Your task to perform on an android device: Open calendar and show me the fourth week of next month Image 0: 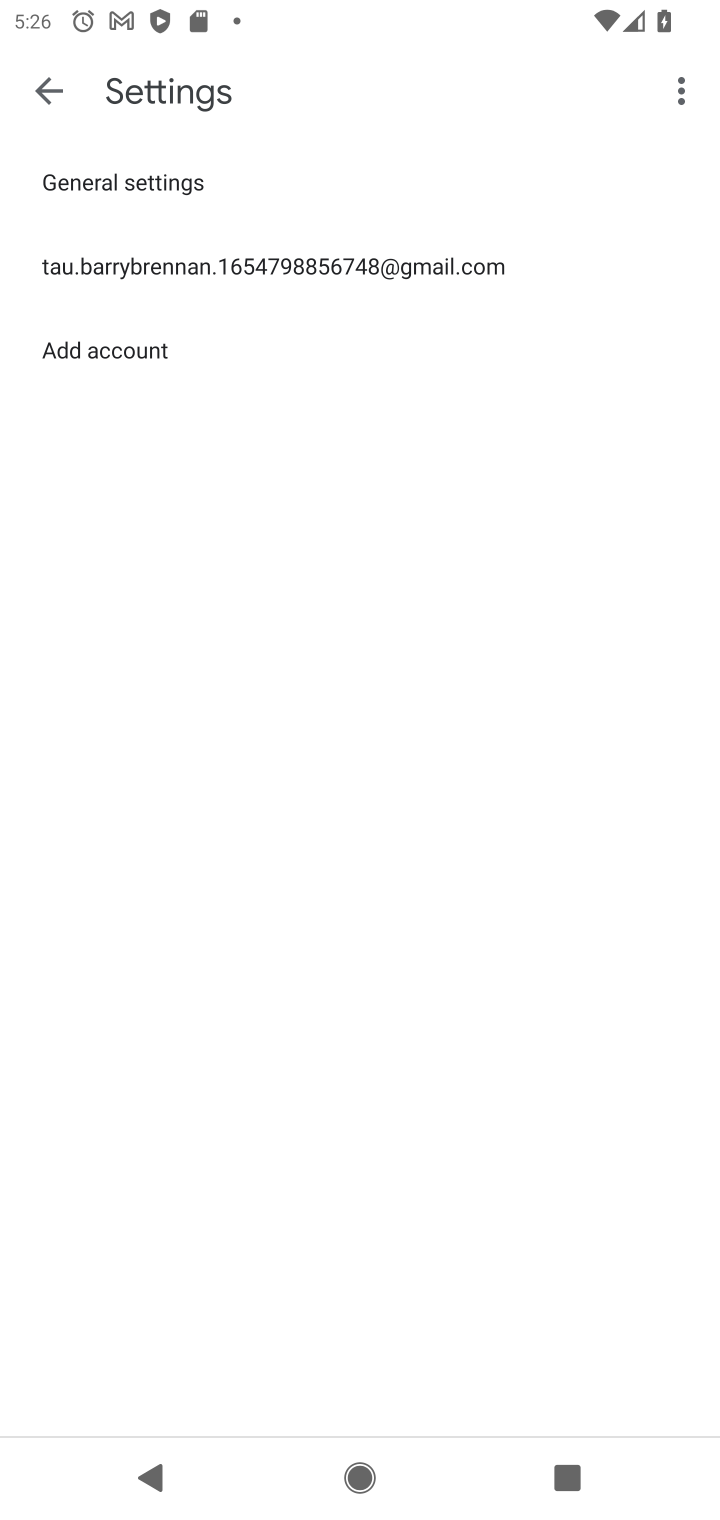
Step 0: press home button
Your task to perform on an android device: Open calendar and show me the fourth week of next month Image 1: 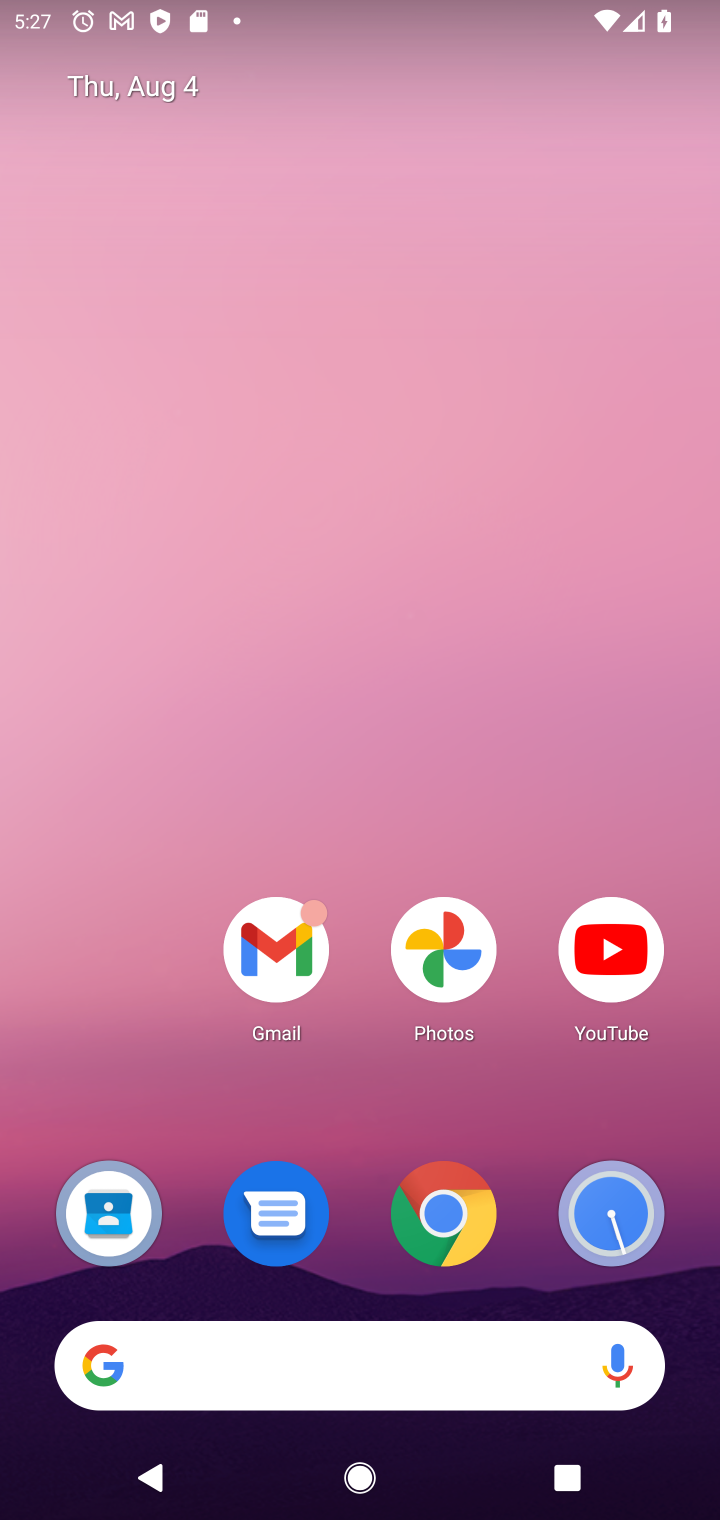
Step 1: drag from (150, 983) to (251, 66)
Your task to perform on an android device: Open calendar and show me the fourth week of next month Image 2: 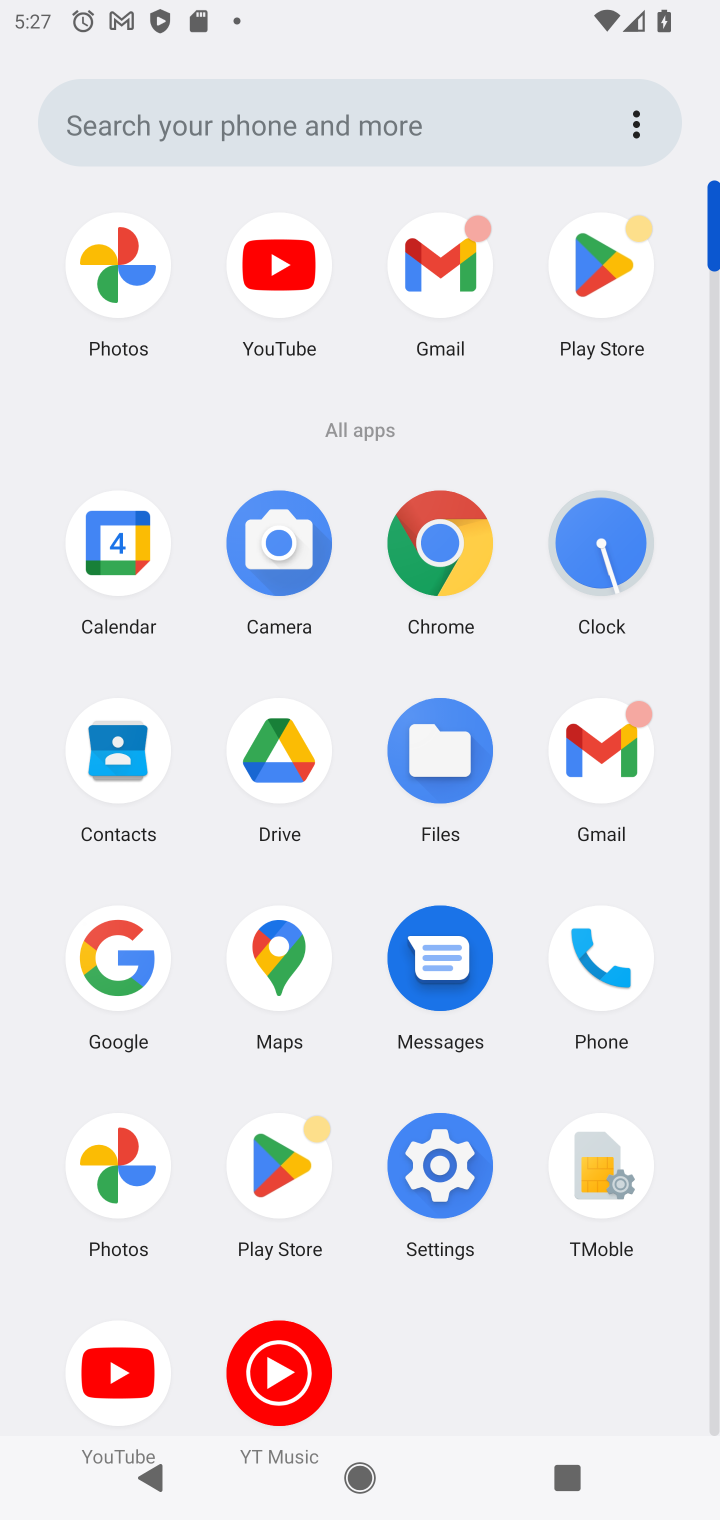
Step 2: click (127, 558)
Your task to perform on an android device: Open calendar and show me the fourth week of next month Image 3: 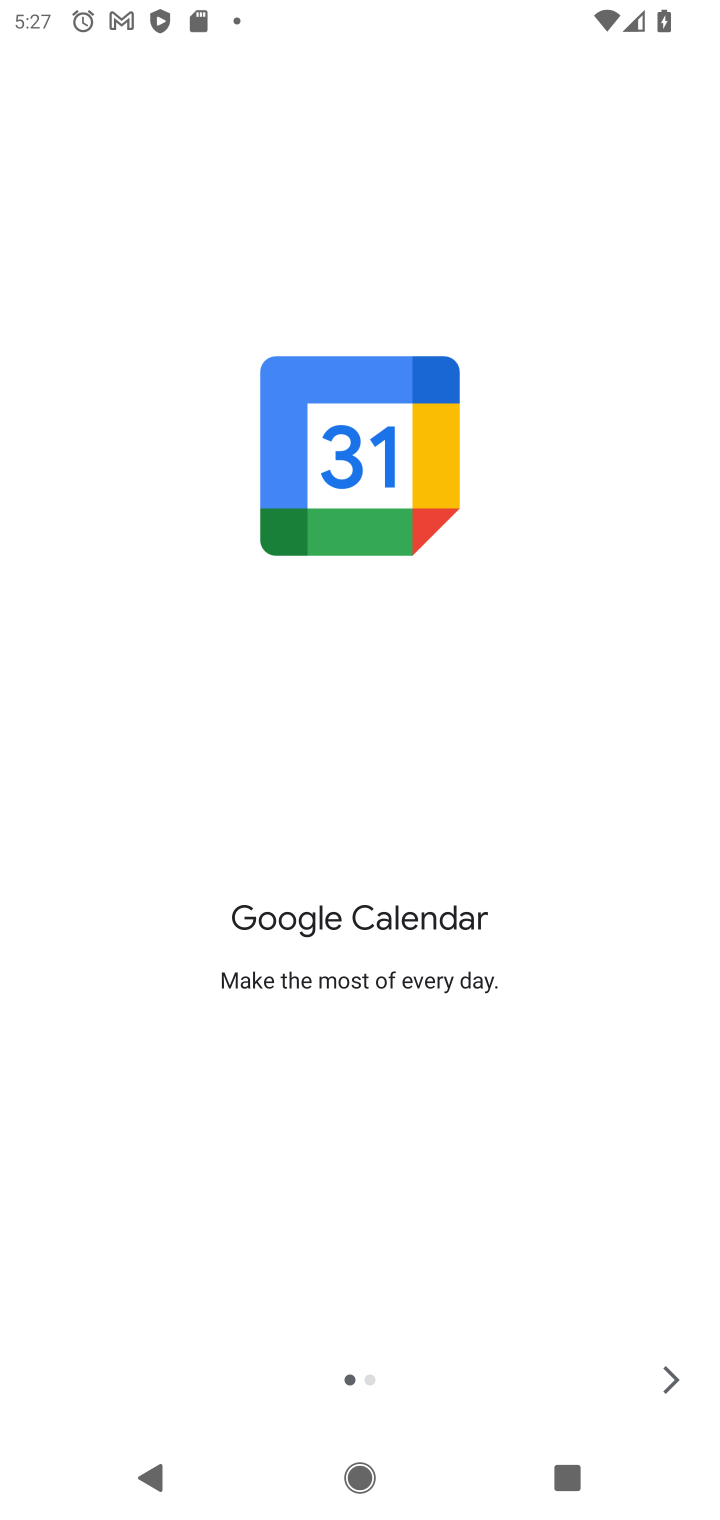
Step 3: click (667, 1406)
Your task to perform on an android device: Open calendar and show me the fourth week of next month Image 4: 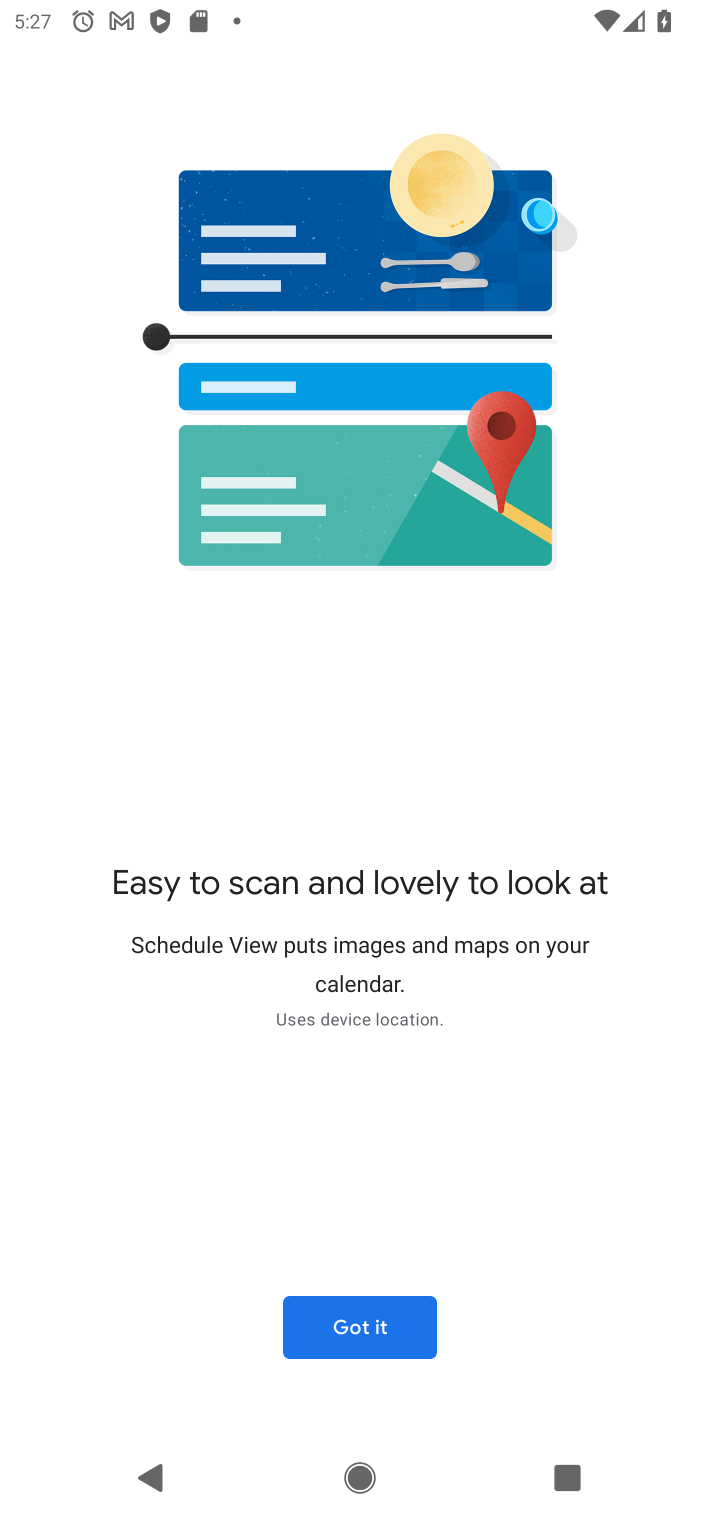
Step 4: click (667, 1406)
Your task to perform on an android device: Open calendar and show me the fourth week of next month Image 5: 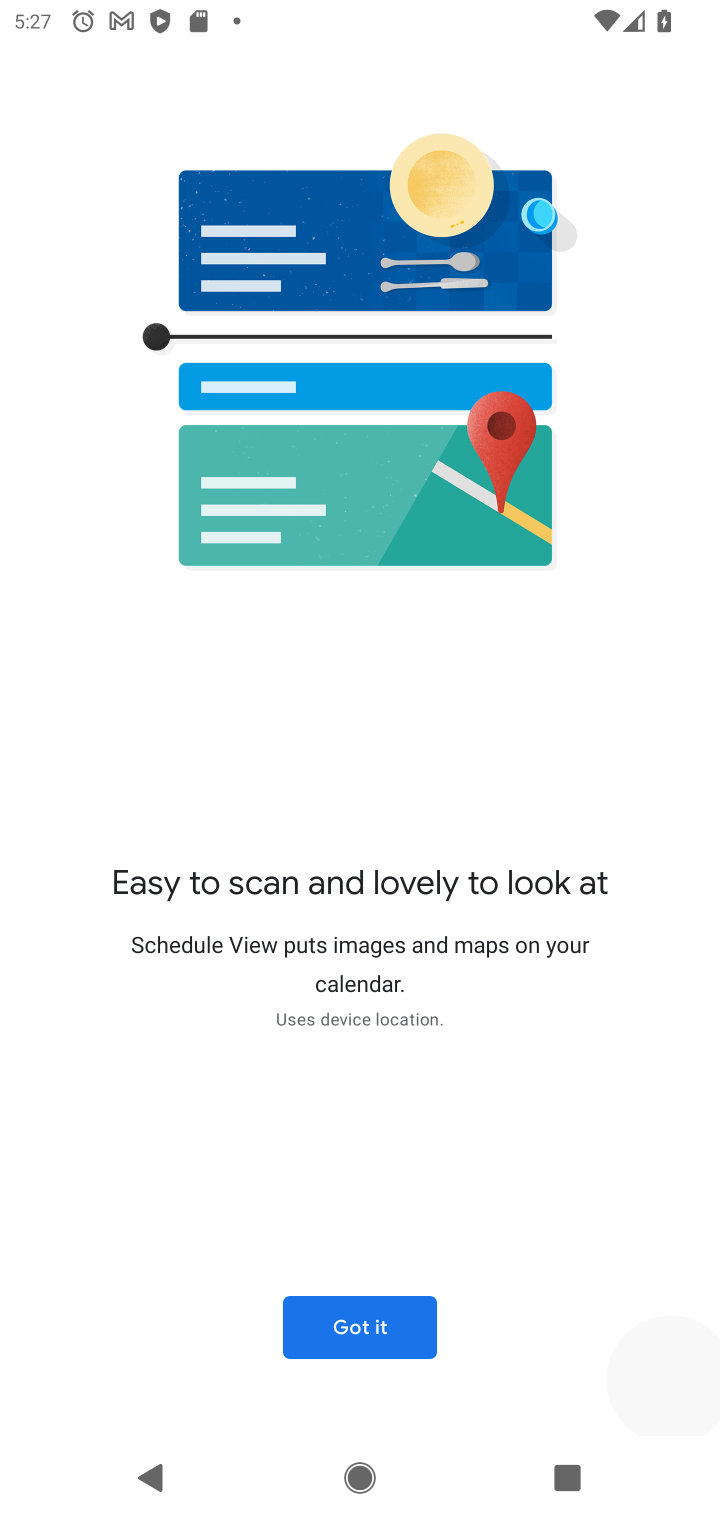
Step 5: click (401, 1310)
Your task to perform on an android device: Open calendar and show me the fourth week of next month Image 6: 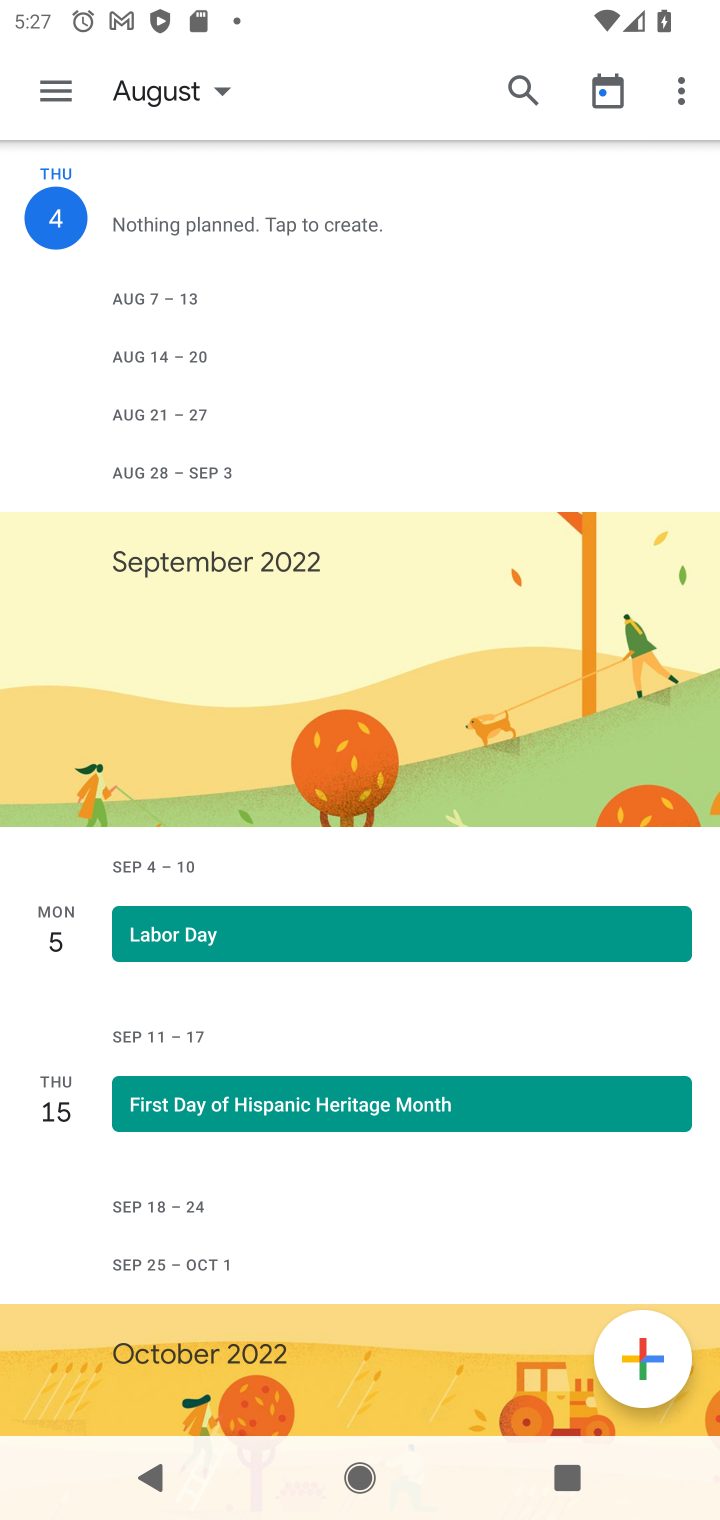
Step 6: click (227, 101)
Your task to perform on an android device: Open calendar and show me the fourth week of next month Image 7: 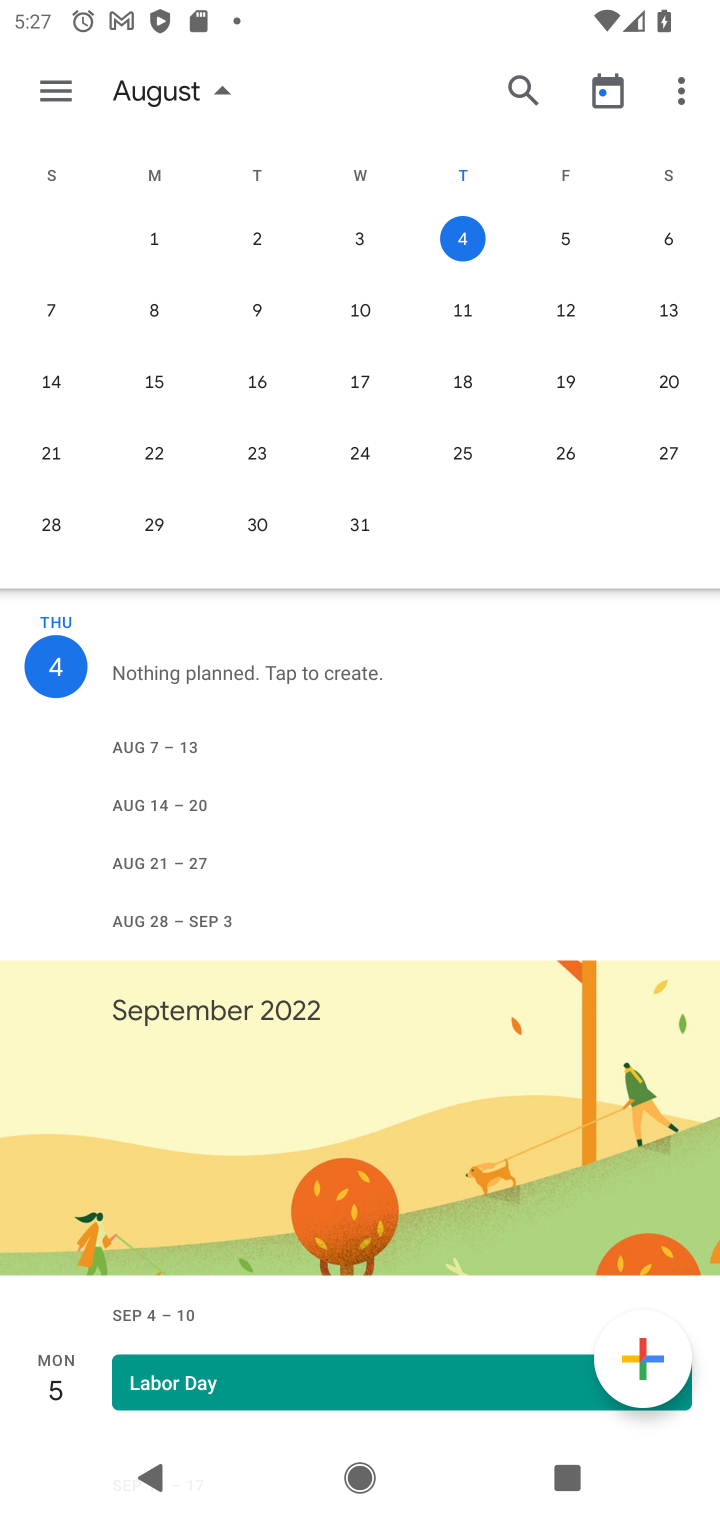
Step 7: drag from (562, 480) to (47, 240)
Your task to perform on an android device: Open calendar and show me the fourth week of next month Image 8: 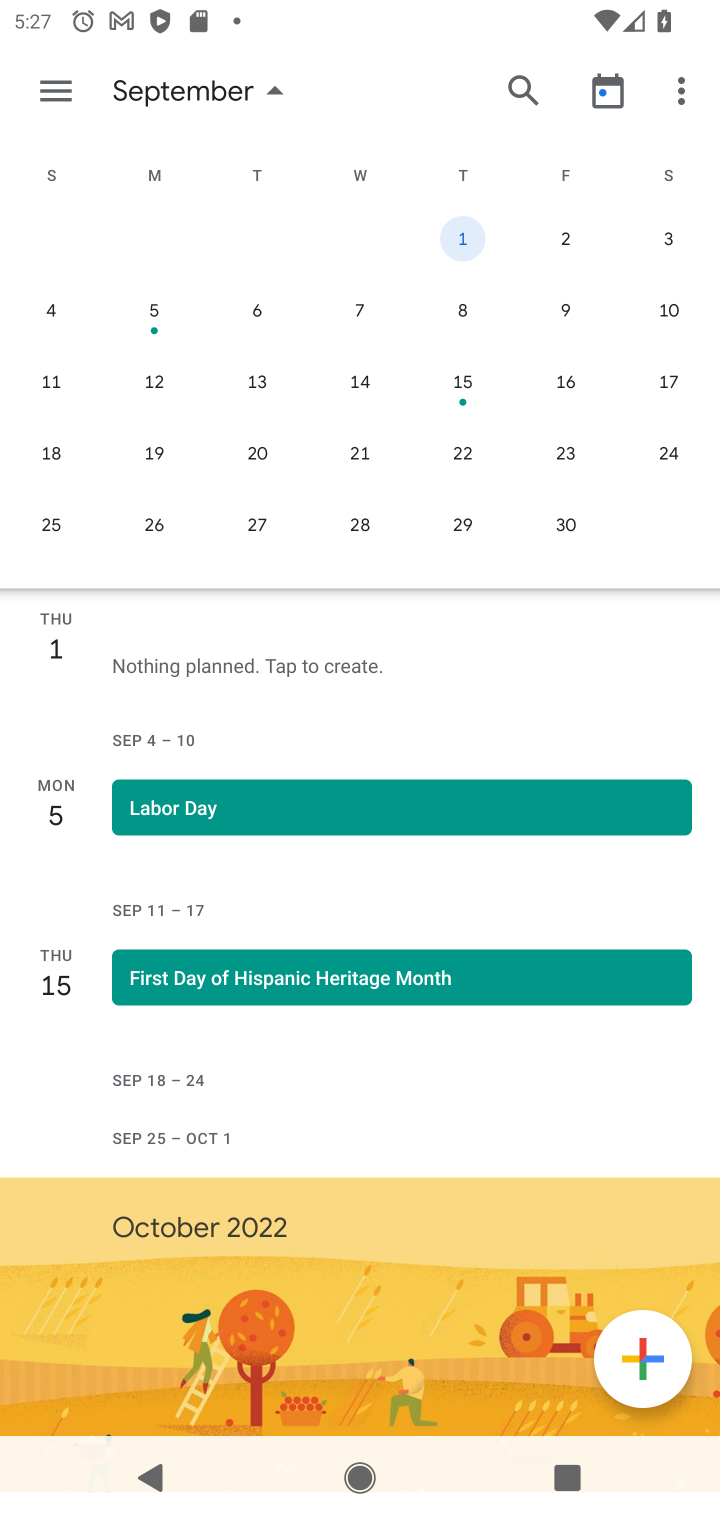
Step 8: click (51, 85)
Your task to perform on an android device: Open calendar and show me the fourth week of next month Image 9: 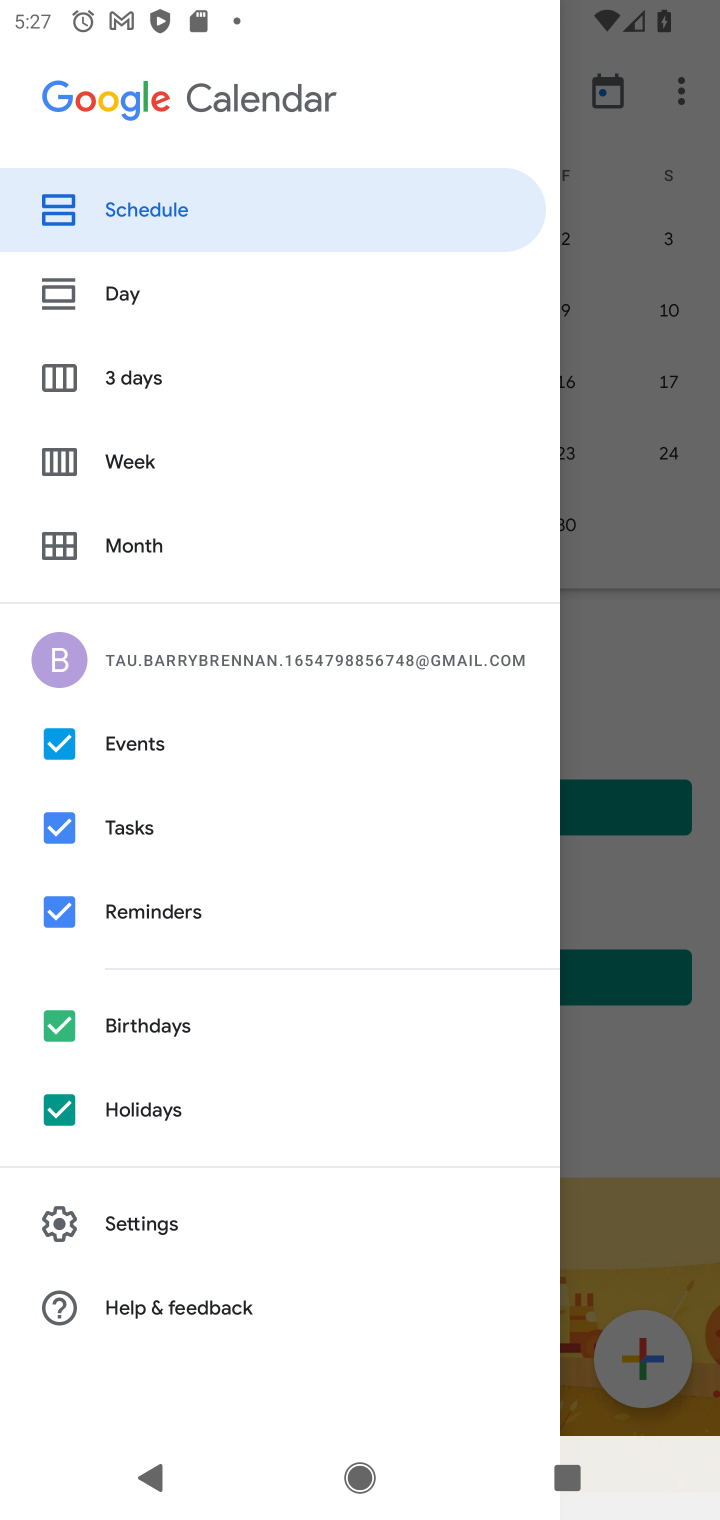
Step 9: click (146, 468)
Your task to perform on an android device: Open calendar and show me the fourth week of next month Image 10: 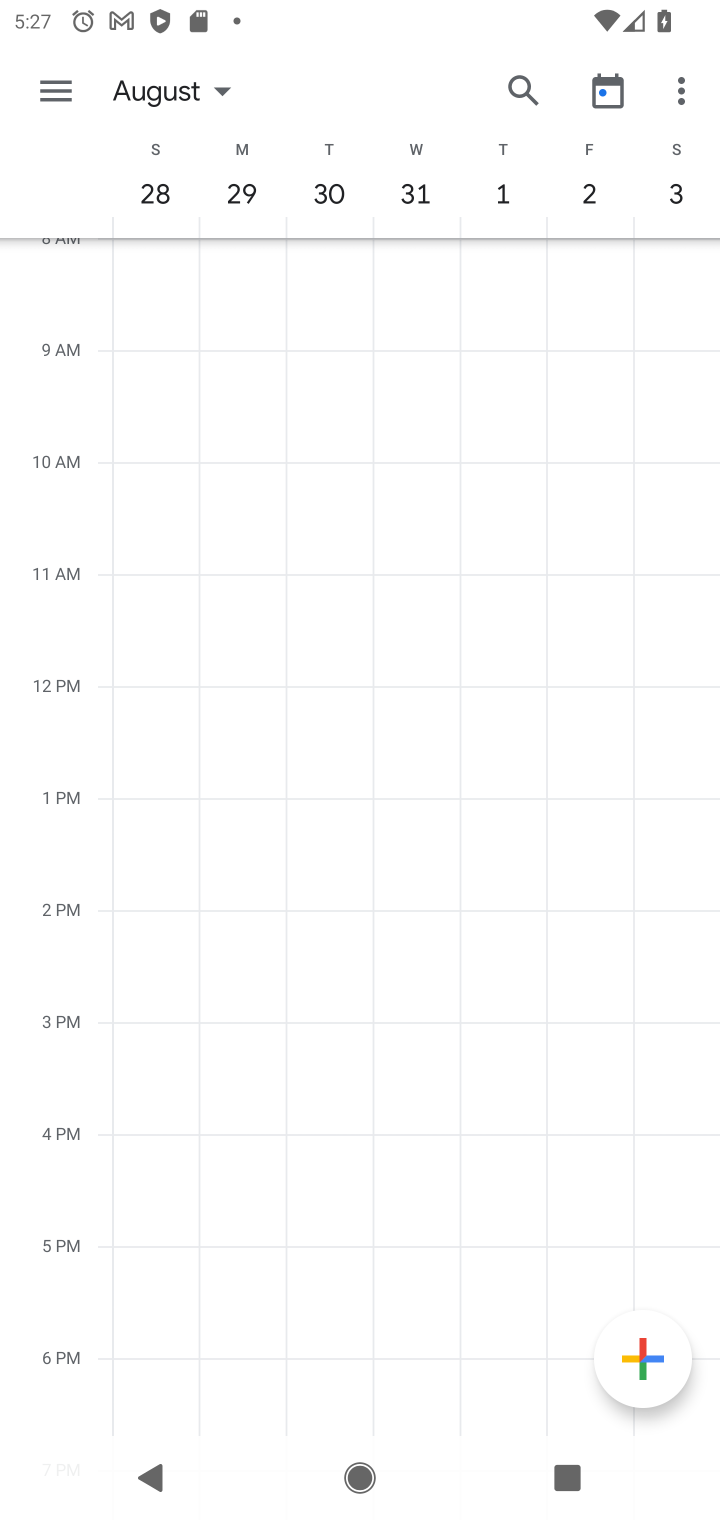
Step 10: task complete